Your task to perform on an android device: toggle wifi Image 0: 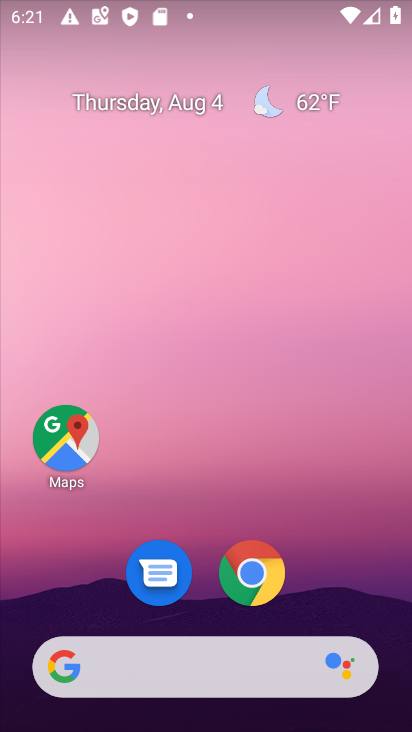
Step 0: drag from (228, 0) to (279, 433)
Your task to perform on an android device: toggle wifi Image 1: 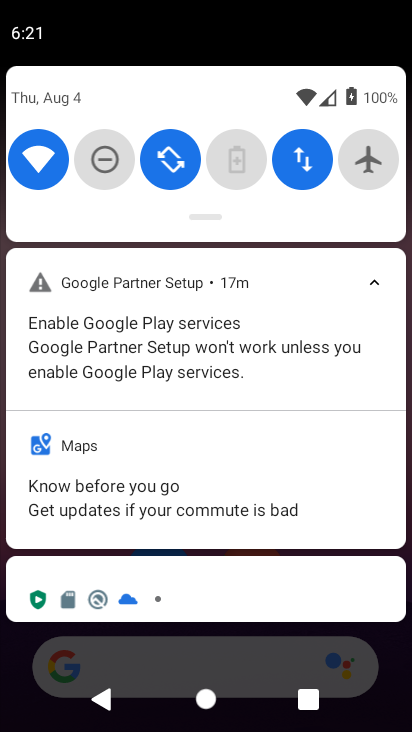
Step 1: click (28, 153)
Your task to perform on an android device: toggle wifi Image 2: 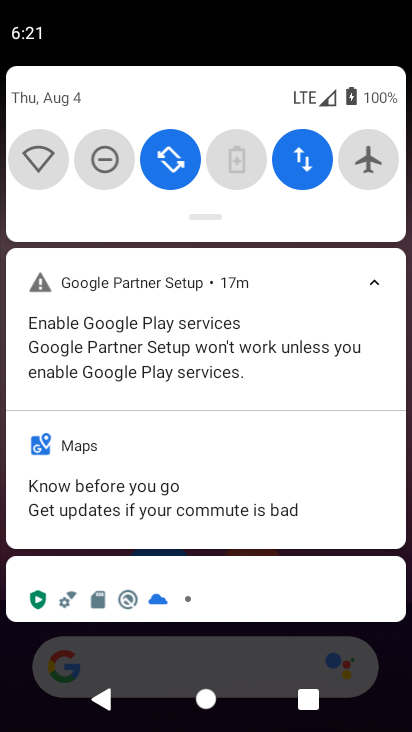
Step 2: task complete